Your task to perform on an android device: see tabs open on other devices in the chrome app Image 0: 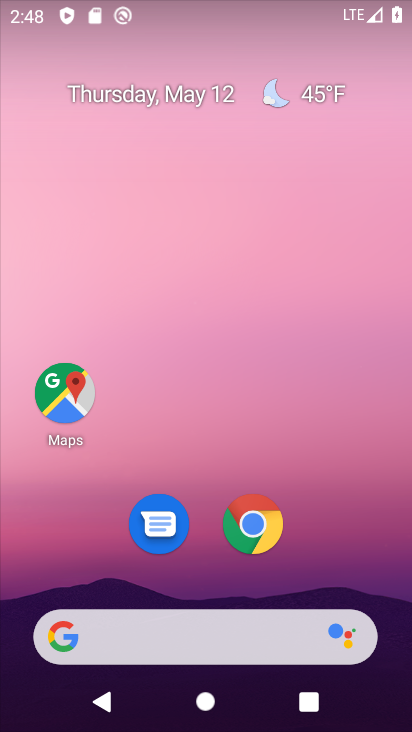
Step 0: click (260, 522)
Your task to perform on an android device: see tabs open on other devices in the chrome app Image 1: 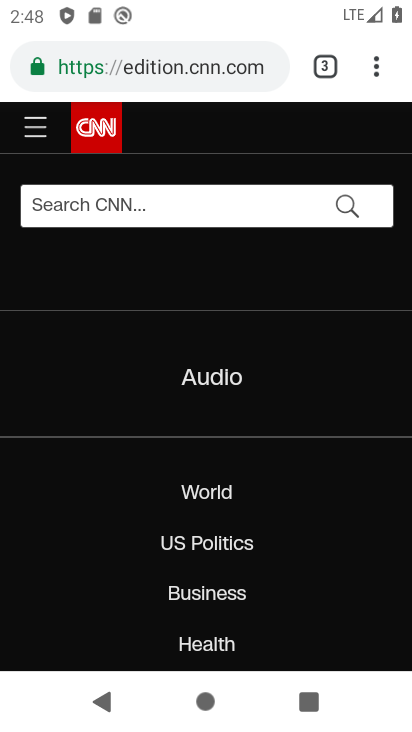
Step 1: click (371, 55)
Your task to perform on an android device: see tabs open on other devices in the chrome app Image 2: 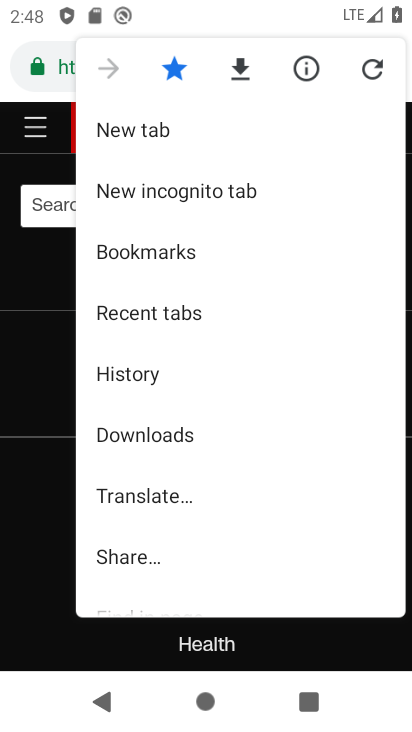
Step 2: click (191, 306)
Your task to perform on an android device: see tabs open on other devices in the chrome app Image 3: 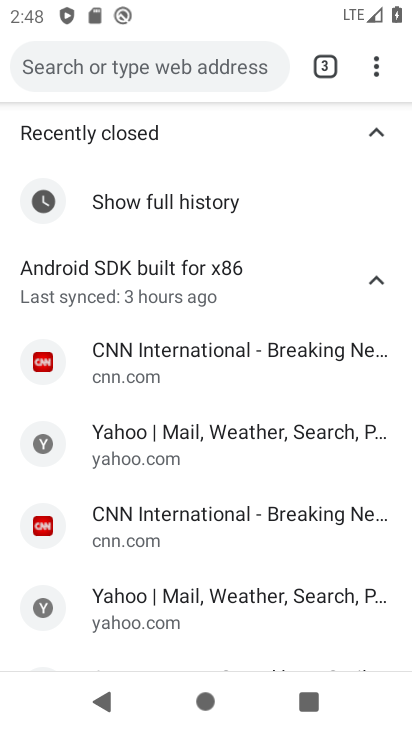
Step 3: task complete